Your task to perform on an android device: Do I have any events tomorrow? Image 0: 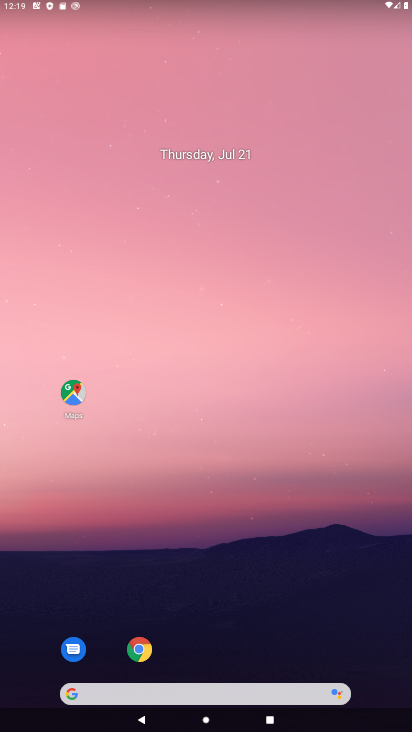
Step 0: drag from (381, 682) to (327, 100)
Your task to perform on an android device: Do I have any events tomorrow? Image 1: 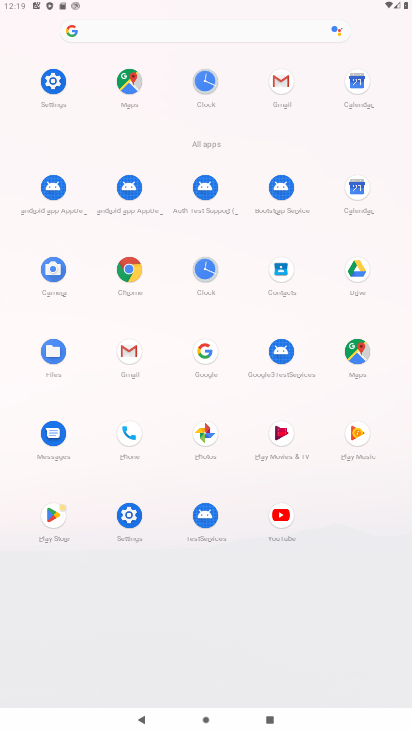
Step 1: click (358, 186)
Your task to perform on an android device: Do I have any events tomorrow? Image 2: 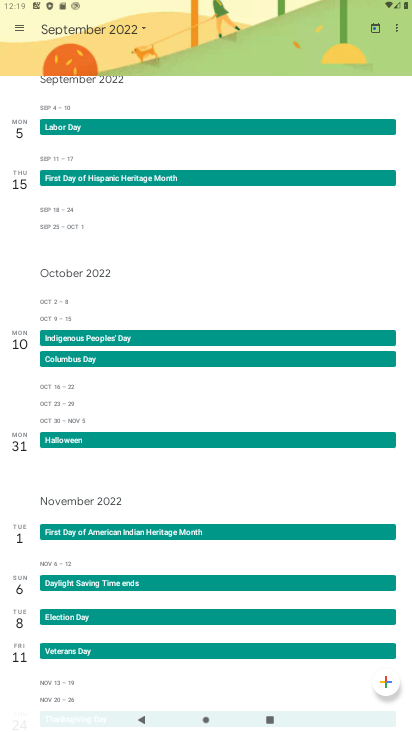
Step 2: click (21, 29)
Your task to perform on an android device: Do I have any events tomorrow? Image 3: 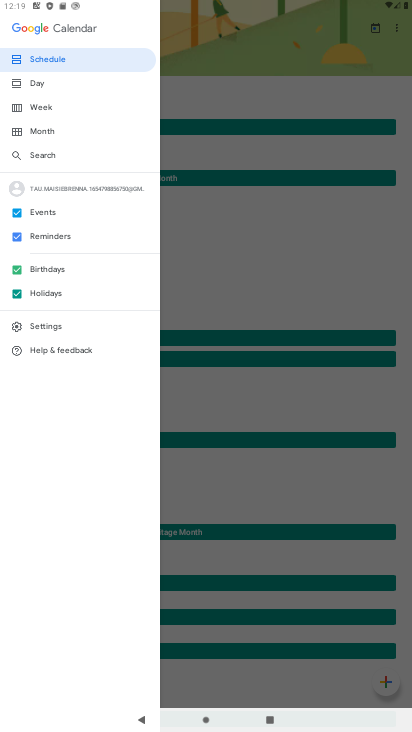
Step 3: click (33, 83)
Your task to perform on an android device: Do I have any events tomorrow? Image 4: 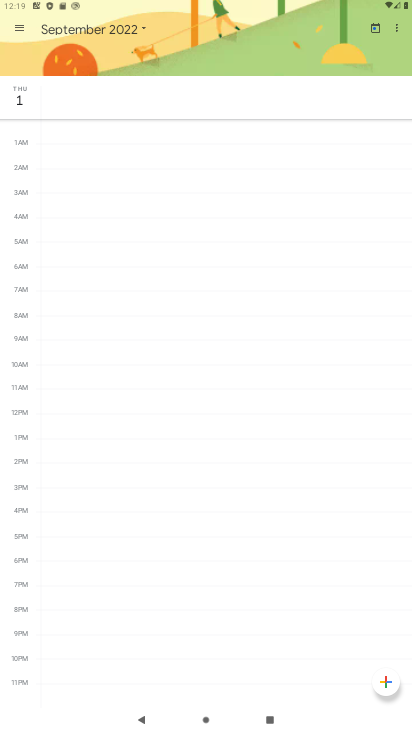
Step 4: click (139, 30)
Your task to perform on an android device: Do I have any events tomorrow? Image 5: 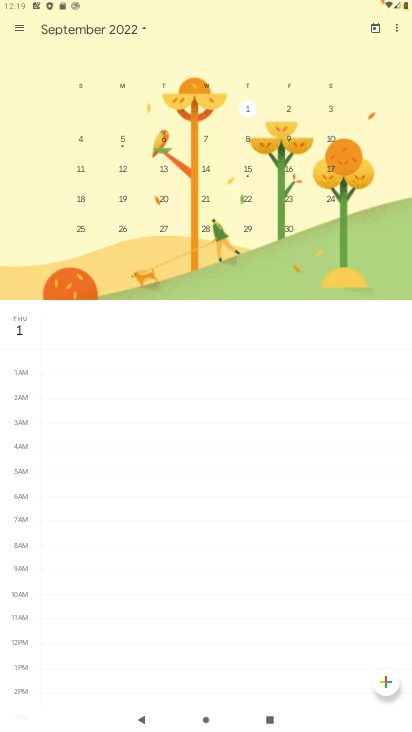
Step 5: drag from (75, 182) to (374, 195)
Your task to perform on an android device: Do I have any events tomorrow? Image 6: 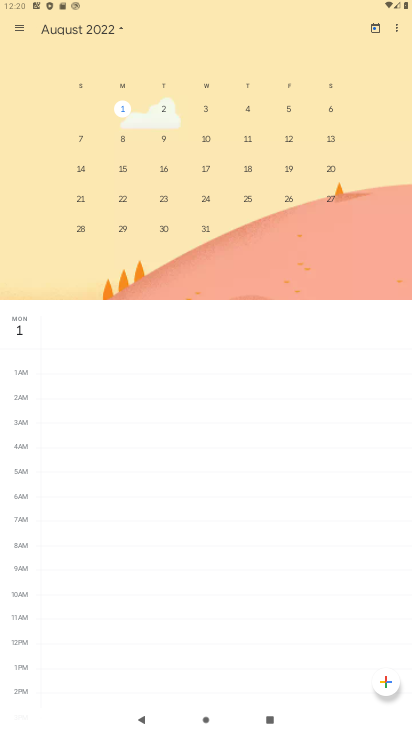
Step 6: drag from (76, 199) to (390, 202)
Your task to perform on an android device: Do I have any events tomorrow? Image 7: 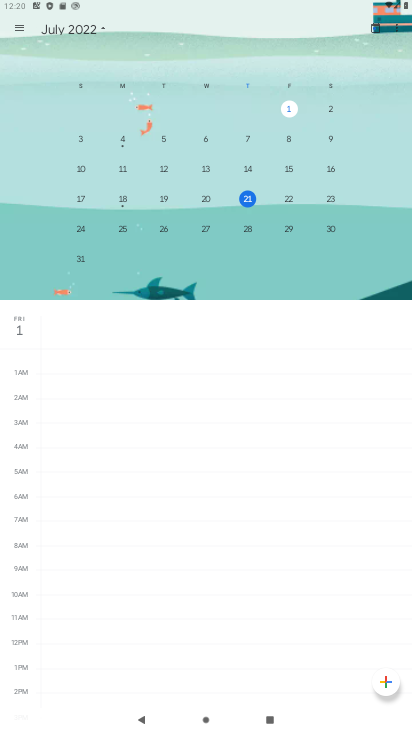
Step 7: click (288, 197)
Your task to perform on an android device: Do I have any events tomorrow? Image 8: 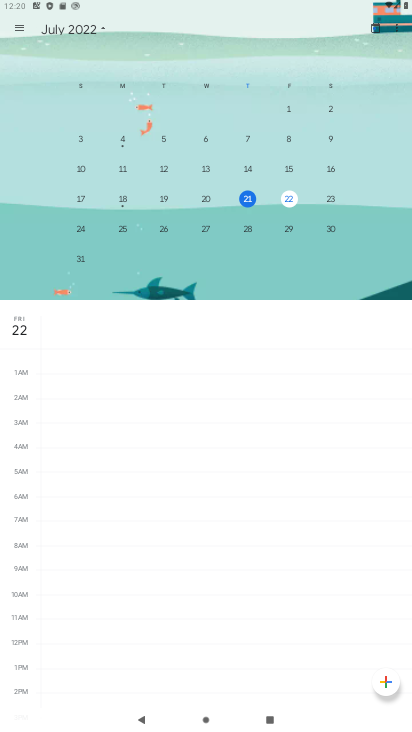
Step 8: task complete